Your task to perform on an android device: open a bookmark in the chrome app Image 0: 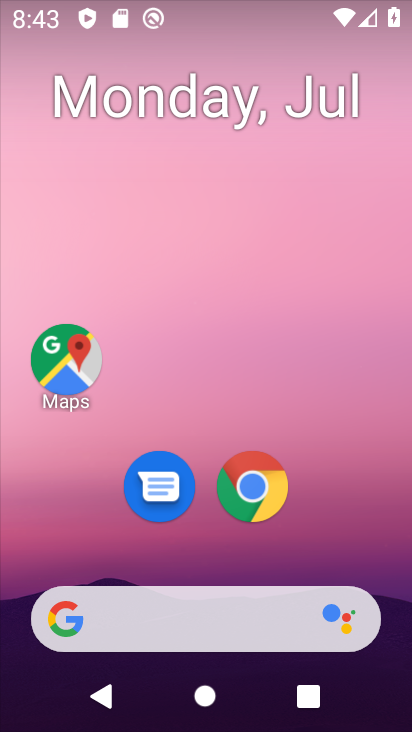
Step 0: click (256, 476)
Your task to perform on an android device: open a bookmark in the chrome app Image 1: 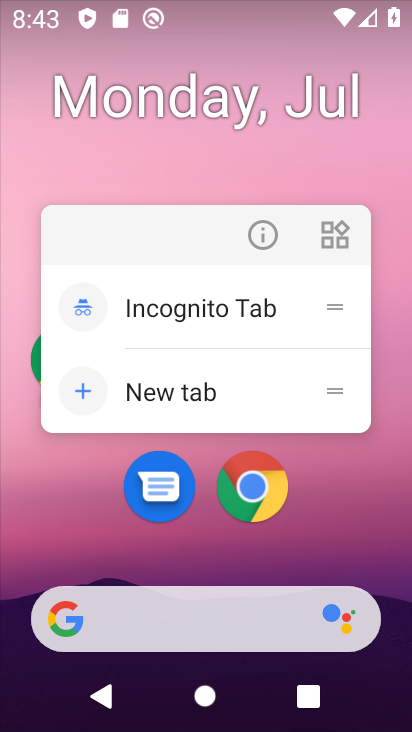
Step 1: click (254, 508)
Your task to perform on an android device: open a bookmark in the chrome app Image 2: 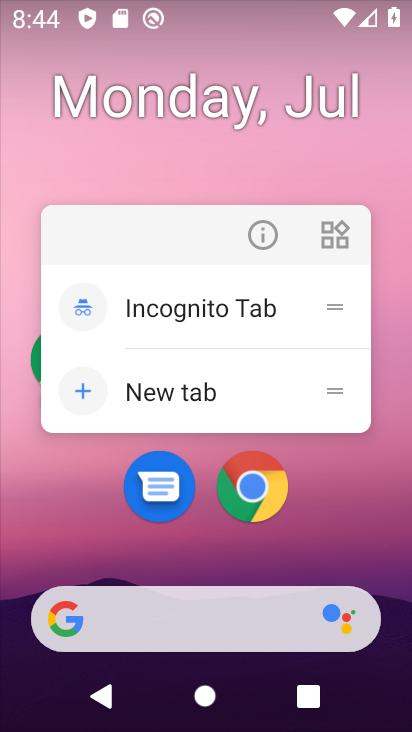
Step 2: click (254, 483)
Your task to perform on an android device: open a bookmark in the chrome app Image 3: 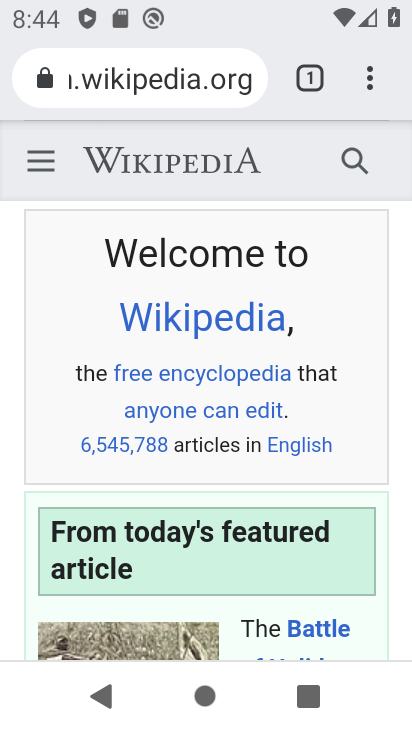
Step 3: task complete